Your task to perform on an android device: turn off improve location accuracy Image 0: 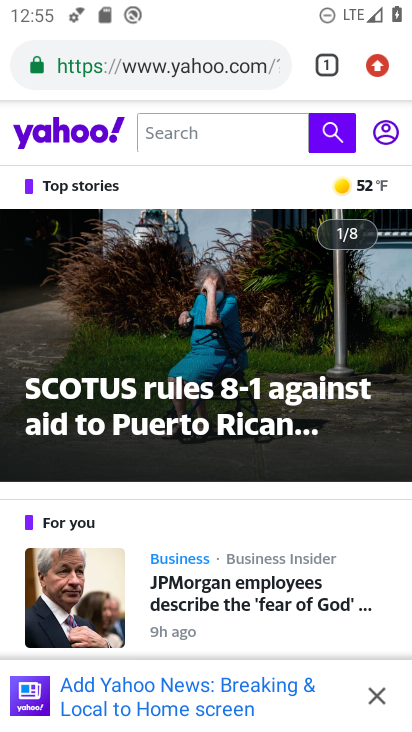
Step 0: press home button
Your task to perform on an android device: turn off improve location accuracy Image 1: 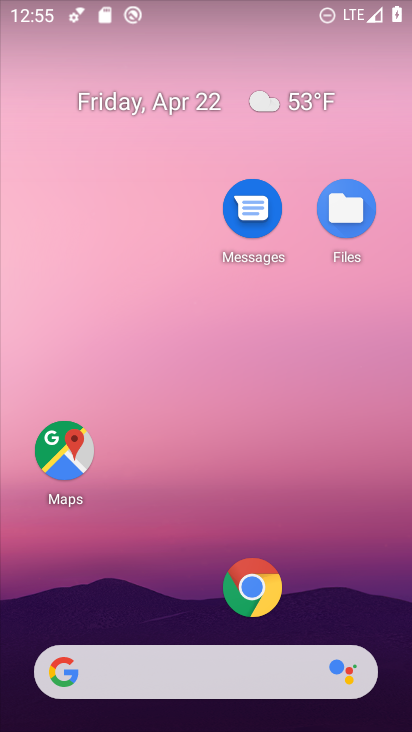
Step 1: drag from (148, 615) to (190, 237)
Your task to perform on an android device: turn off improve location accuracy Image 2: 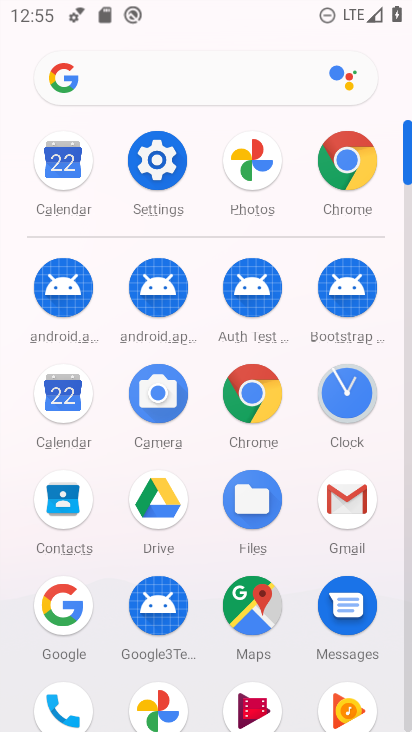
Step 2: click (159, 162)
Your task to perform on an android device: turn off improve location accuracy Image 3: 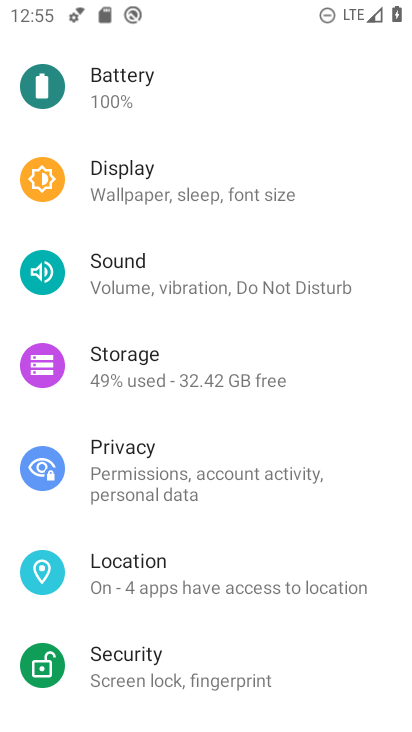
Step 3: click (176, 589)
Your task to perform on an android device: turn off improve location accuracy Image 4: 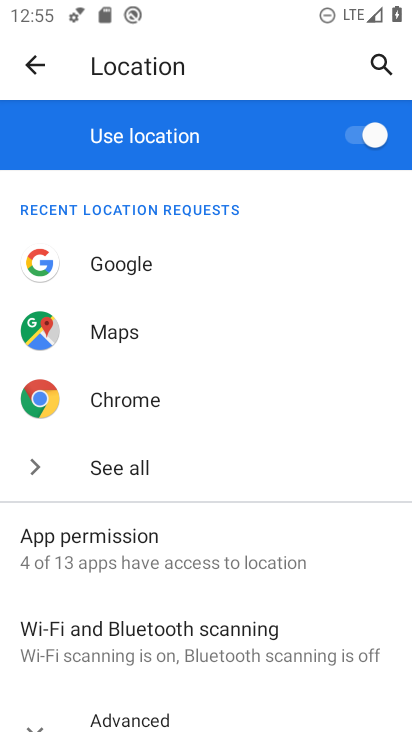
Step 4: drag from (176, 667) to (224, 389)
Your task to perform on an android device: turn off improve location accuracy Image 5: 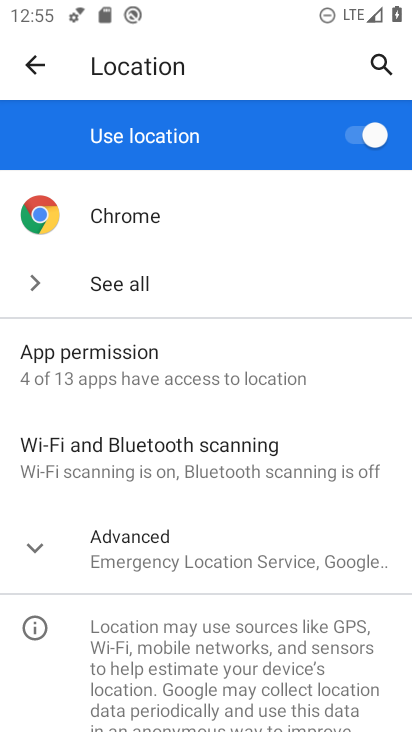
Step 5: click (33, 539)
Your task to perform on an android device: turn off improve location accuracy Image 6: 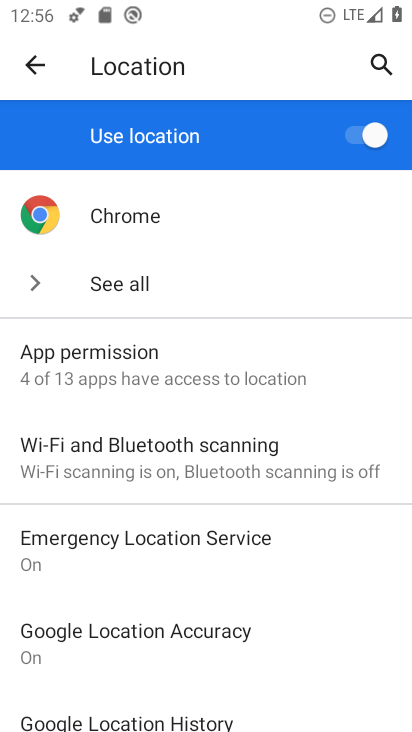
Step 6: click (156, 634)
Your task to perform on an android device: turn off improve location accuracy Image 7: 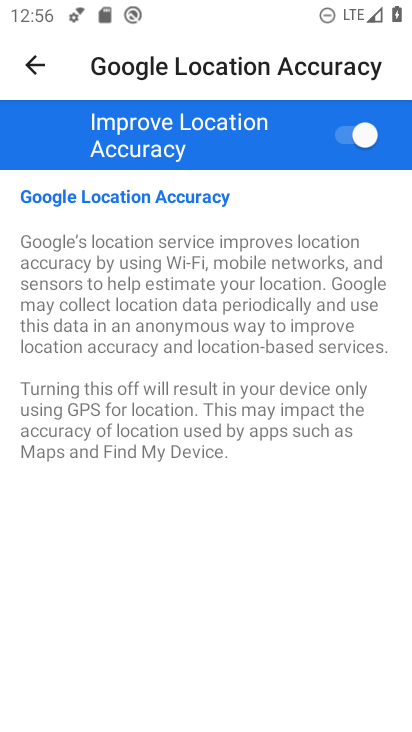
Step 7: click (341, 144)
Your task to perform on an android device: turn off improve location accuracy Image 8: 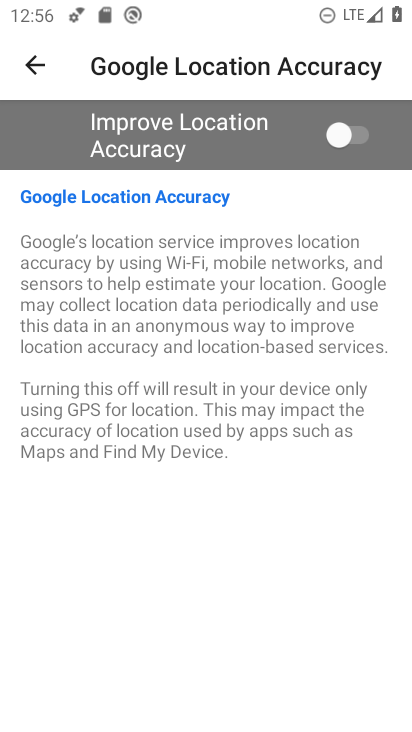
Step 8: task complete